Your task to perform on an android device: Open Google Chrome and open the bookmarks view Image 0: 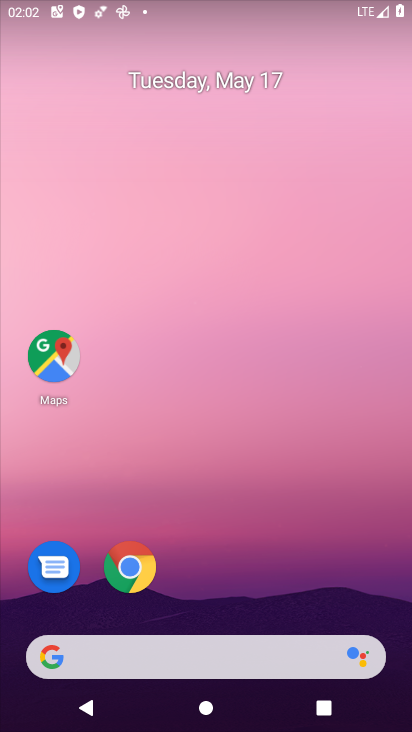
Step 0: click (132, 560)
Your task to perform on an android device: Open Google Chrome and open the bookmarks view Image 1: 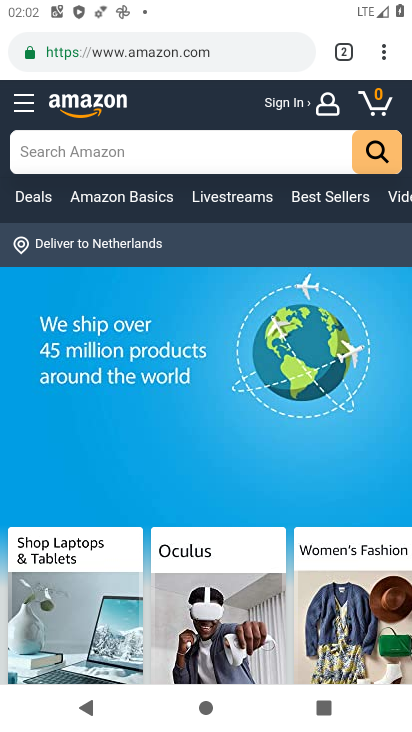
Step 1: click (381, 50)
Your task to perform on an android device: Open Google Chrome and open the bookmarks view Image 2: 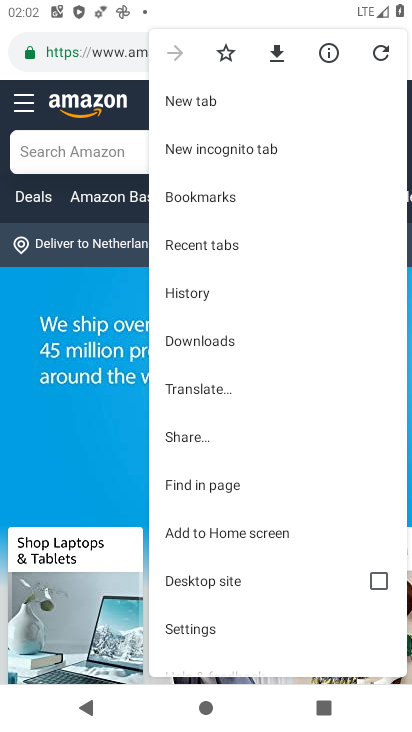
Step 2: click (188, 195)
Your task to perform on an android device: Open Google Chrome and open the bookmarks view Image 3: 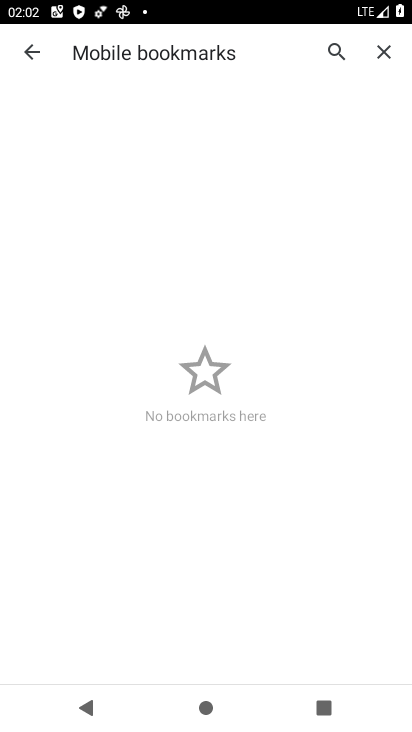
Step 3: task complete